Your task to perform on an android device: turn off picture-in-picture Image 0: 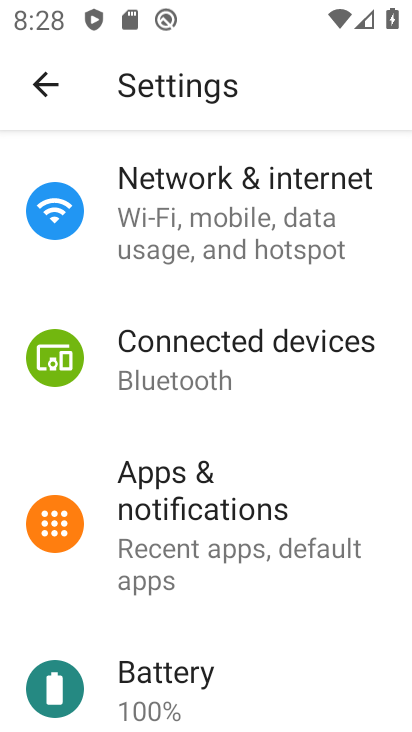
Step 0: press home button
Your task to perform on an android device: turn off picture-in-picture Image 1: 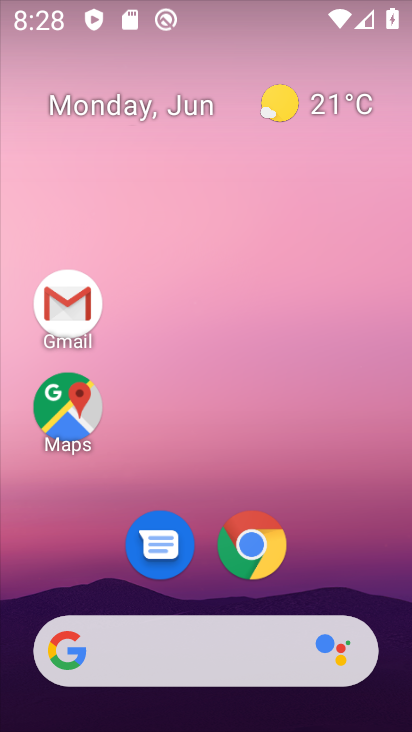
Step 1: click (248, 549)
Your task to perform on an android device: turn off picture-in-picture Image 2: 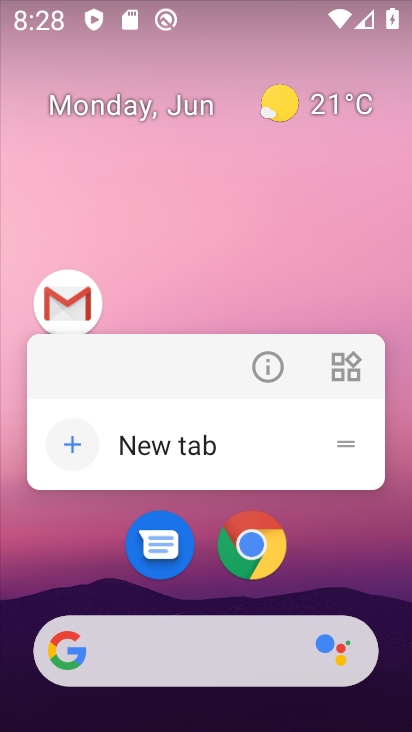
Step 2: click (268, 355)
Your task to perform on an android device: turn off picture-in-picture Image 3: 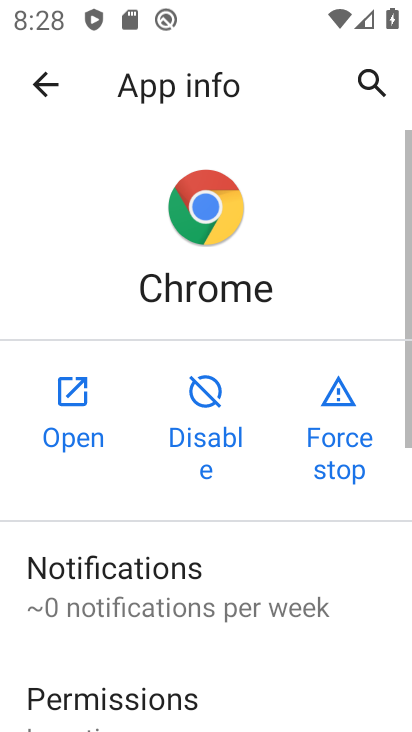
Step 3: drag from (275, 618) to (224, 255)
Your task to perform on an android device: turn off picture-in-picture Image 4: 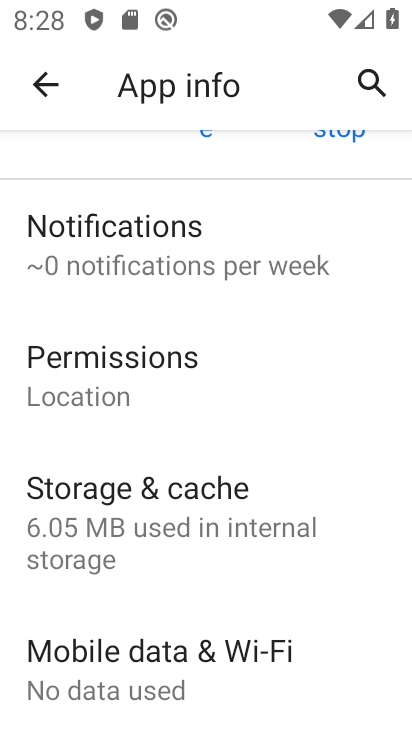
Step 4: drag from (269, 665) to (242, 268)
Your task to perform on an android device: turn off picture-in-picture Image 5: 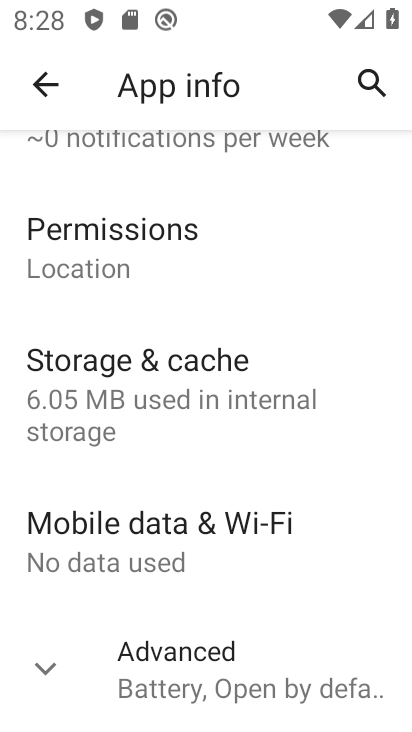
Step 5: click (313, 665)
Your task to perform on an android device: turn off picture-in-picture Image 6: 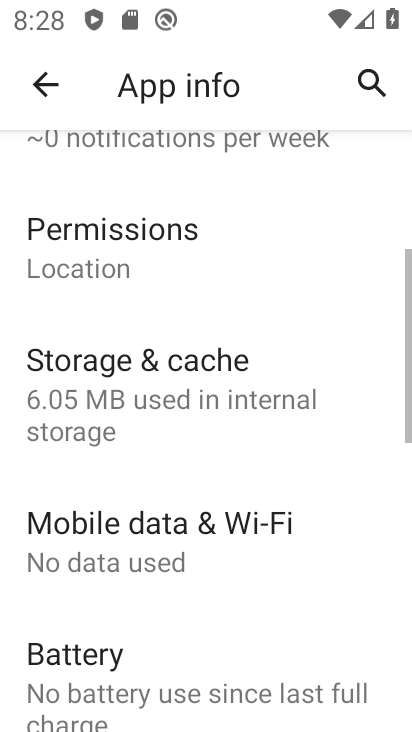
Step 6: drag from (313, 665) to (309, 171)
Your task to perform on an android device: turn off picture-in-picture Image 7: 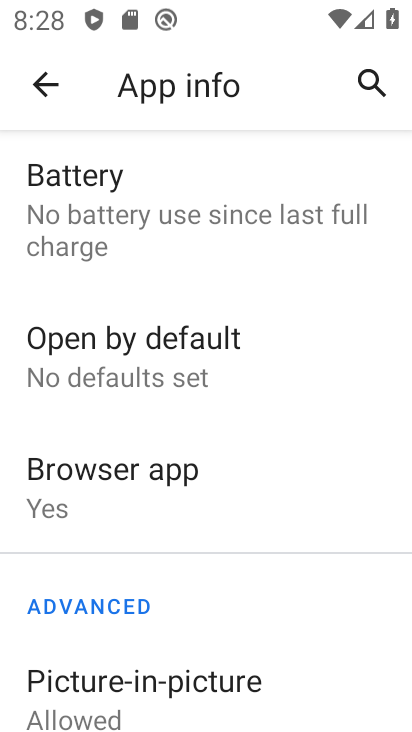
Step 7: drag from (315, 619) to (288, 297)
Your task to perform on an android device: turn off picture-in-picture Image 8: 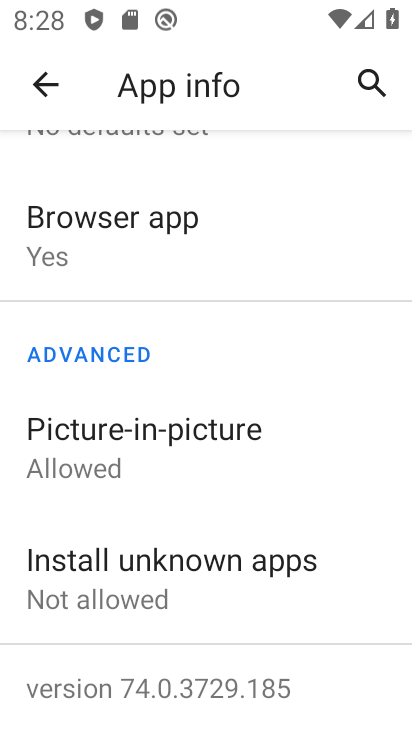
Step 8: click (203, 434)
Your task to perform on an android device: turn off picture-in-picture Image 9: 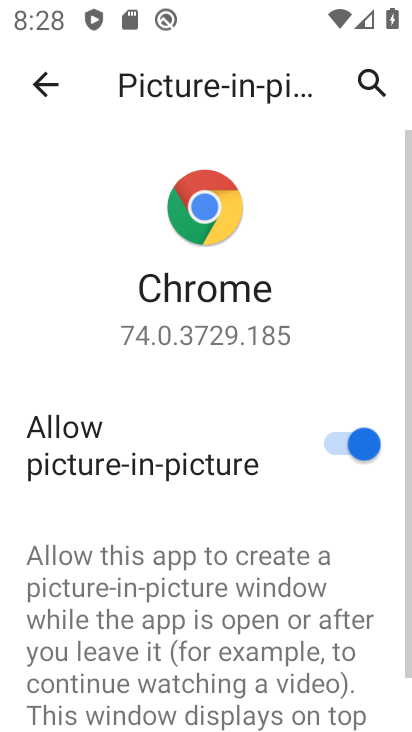
Step 9: click (368, 432)
Your task to perform on an android device: turn off picture-in-picture Image 10: 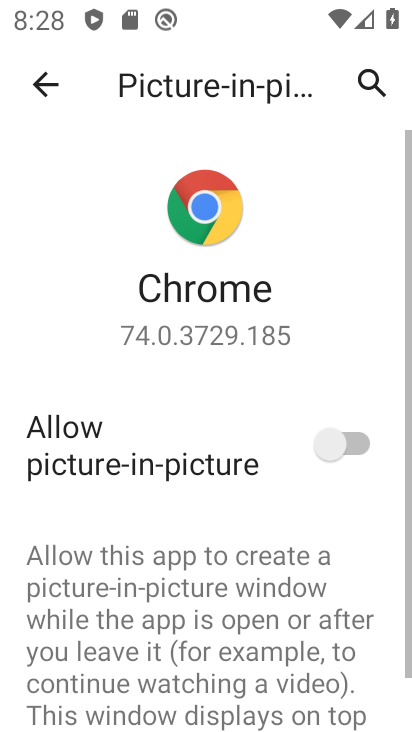
Step 10: task complete